Your task to perform on an android device: Open maps Image 0: 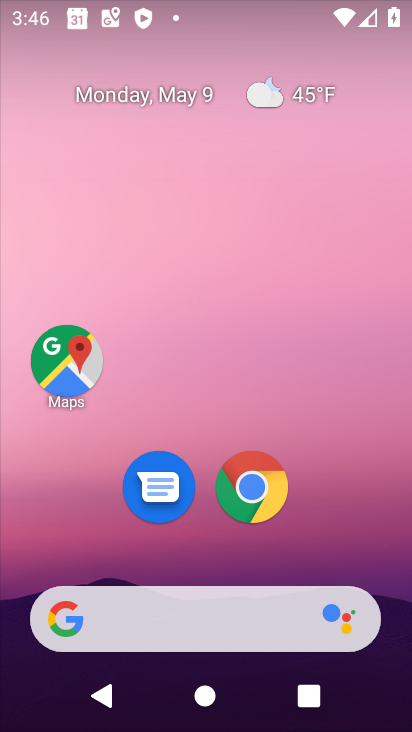
Step 0: click (57, 374)
Your task to perform on an android device: Open maps Image 1: 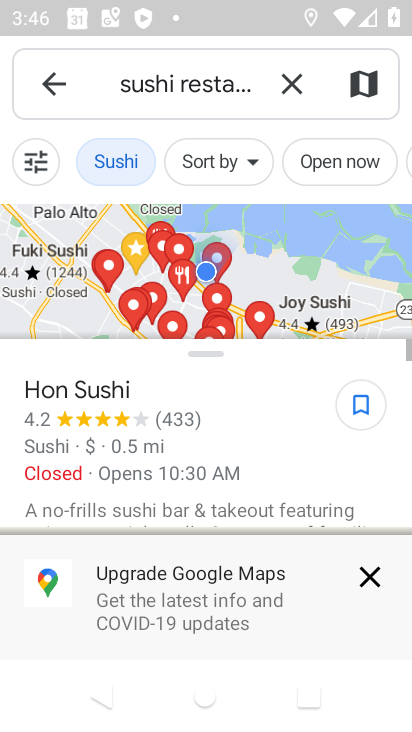
Step 1: click (284, 88)
Your task to perform on an android device: Open maps Image 2: 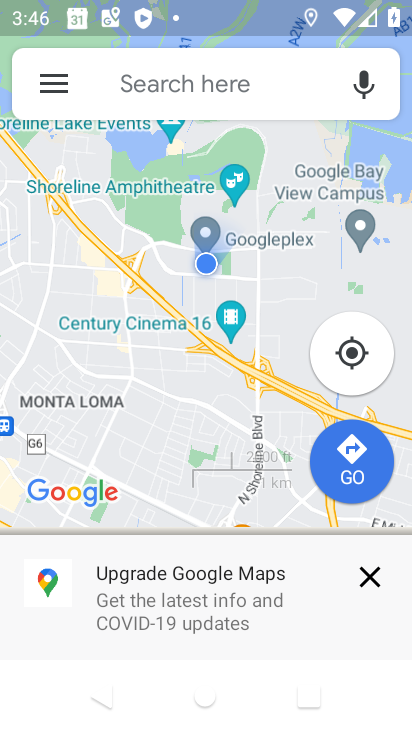
Step 2: task complete